Your task to perform on an android device: add a contact in the contacts app Image 0: 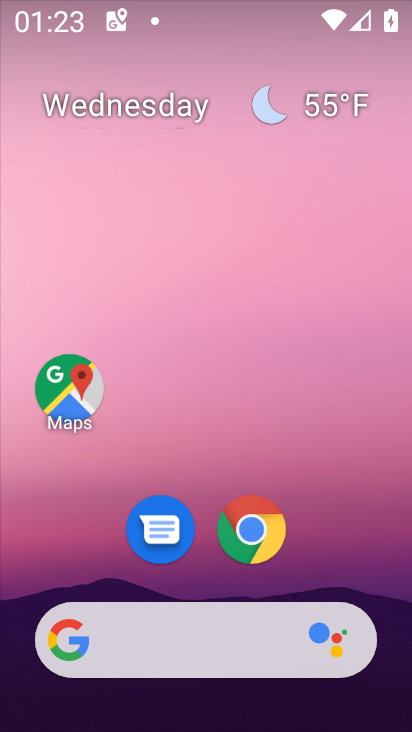
Step 0: drag from (210, 721) to (205, 204)
Your task to perform on an android device: add a contact in the contacts app Image 1: 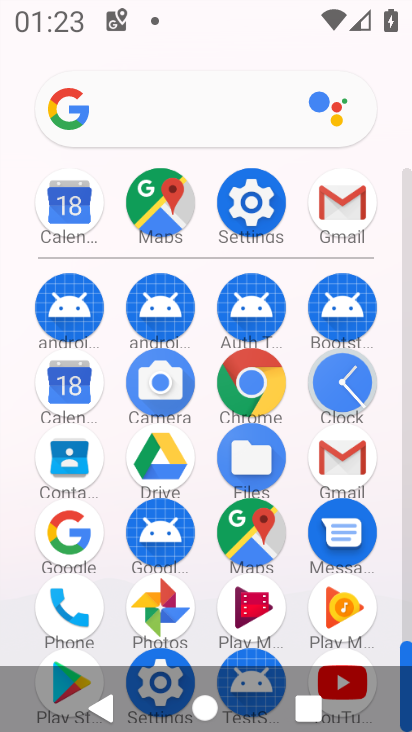
Step 1: click (48, 437)
Your task to perform on an android device: add a contact in the contacts app Image 2: 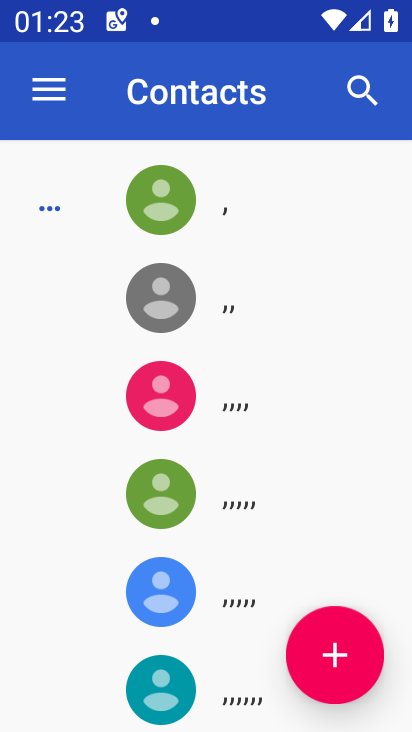
Step 2: click (355, 635)
Your task to perform on an android device: add a contact in the contacts app Image 3: 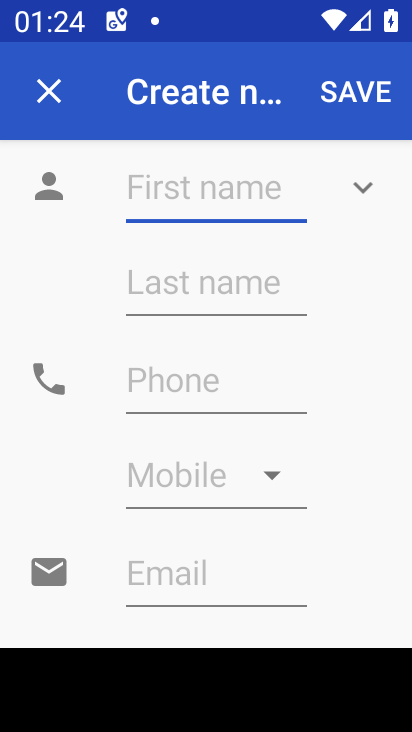
Step 3: type "kgf2"
Your task to perform on an android device: add a contact in the contacts app Image 4: 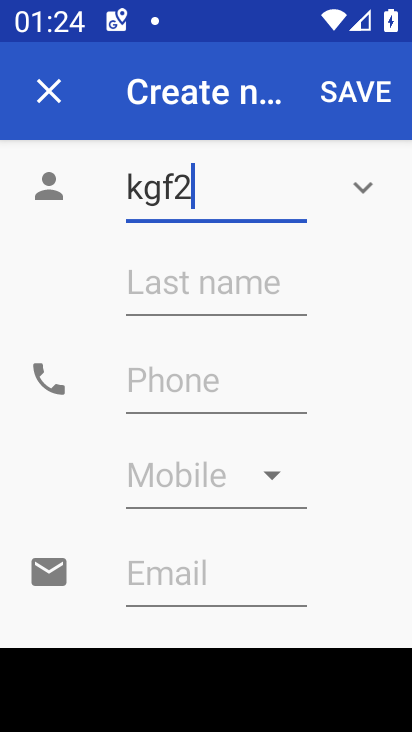
Step 4: click (184, 381)
Your task to perform on an android device: add a contact in the contacts app Image 5: 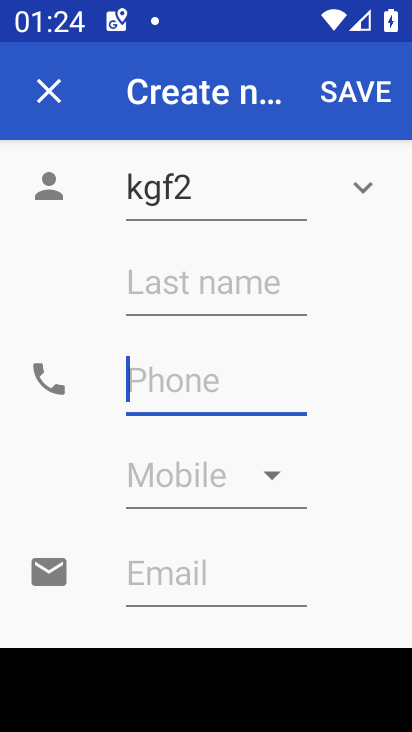
Step 5: type "99999"
Your task to perform on an android device: add a contact in the contacts app Image 6: 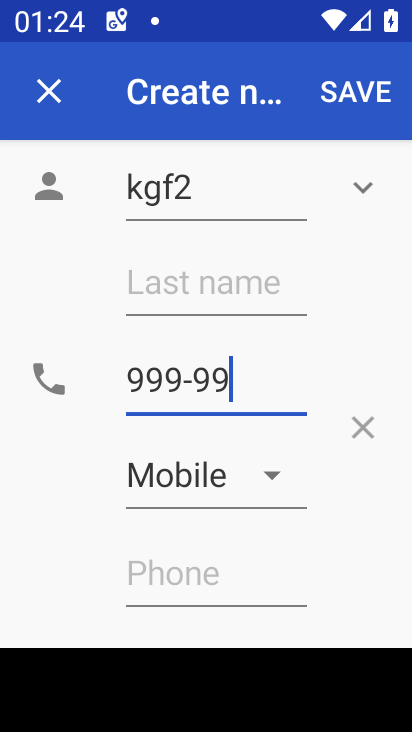
Step 6: click (361, 89)
Your task to perform on an android device: add a contact in the contacts app Image 7: 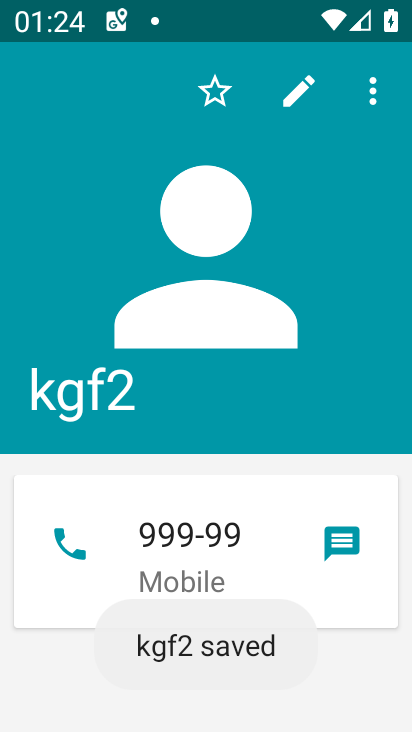
Step 7: task complete